Your task to perform on an android device: Go to notification settings Image 0: 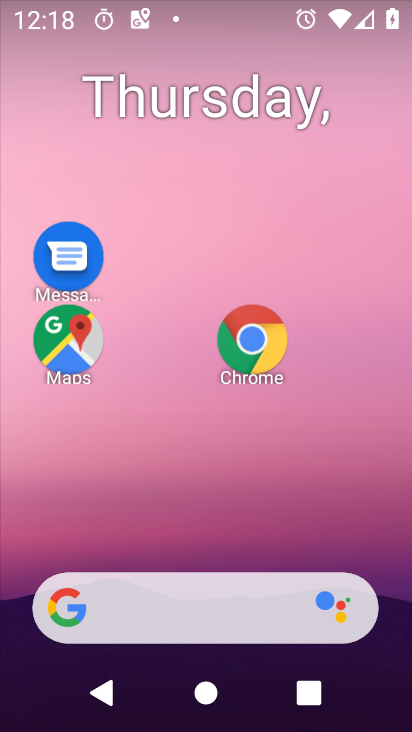
Step 0: drag from (255, 507) to (237, 131)
Your task to perform on an android device: Go to notification settings Image 1: 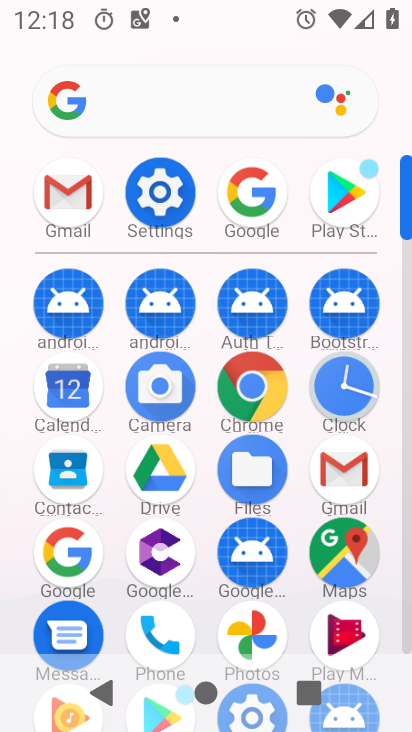
Step 1: click (158, 190)
Your task to perform on an android device: Go to notification settings Image 2: 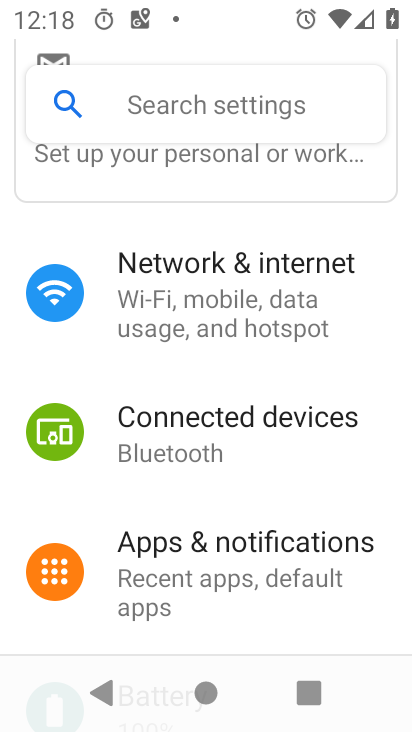
Step 2: drag from (277, 536) to (259, 453)
Your task to perform on an android device: Go to notification settings Image 3: 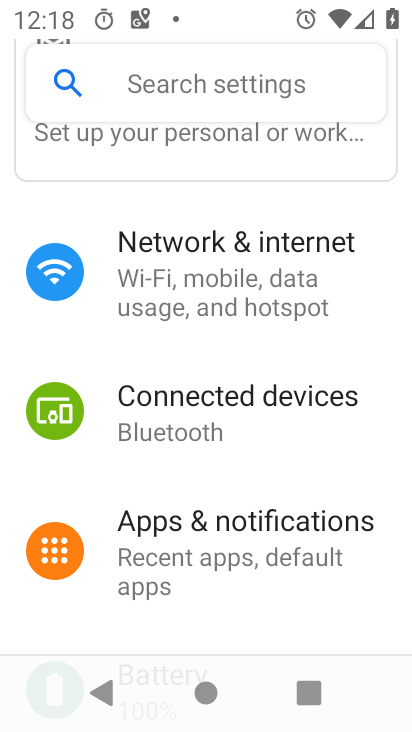
Step 3: click (239, 506)
Your task to perform on an android device: Go to notification settings Image 4: 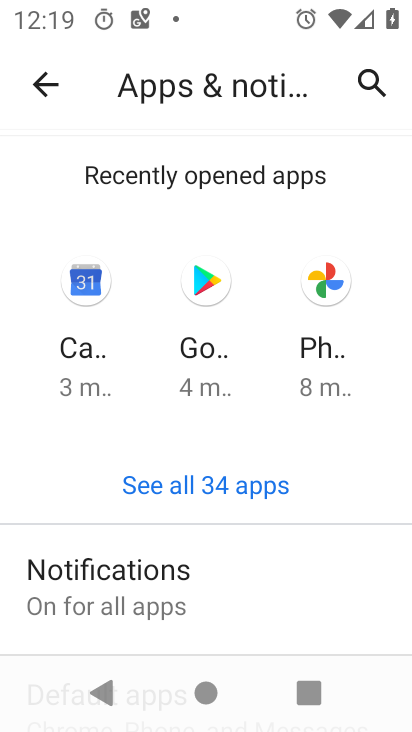
Step 4: click (192, 608)
Your task to perform on an android device: Go to notification settings Image 5: 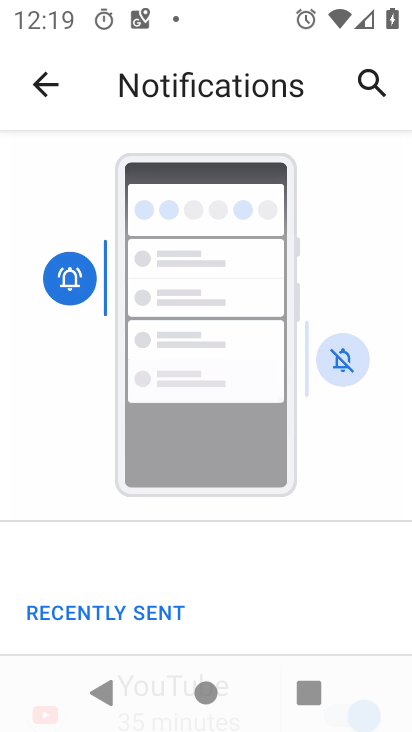
Step 5: task complete